Your task to perform on an android device: stop showing notifications on the lock screen Image 0: 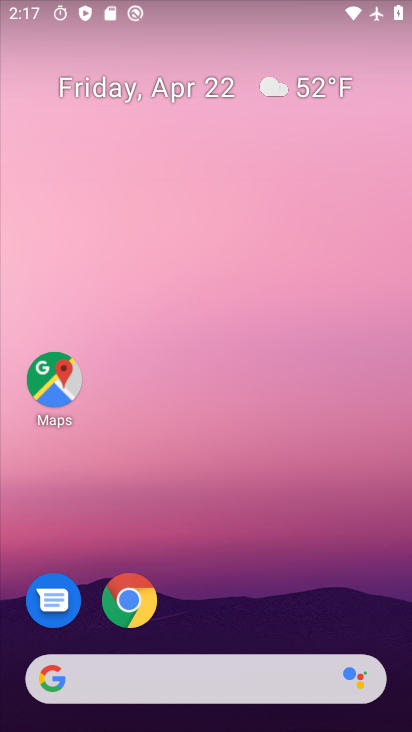
Step 0: drag from (210, 655) to (202, 254)
Your task to perform on an android device: stop showing notifications on the lock screen Image 1: 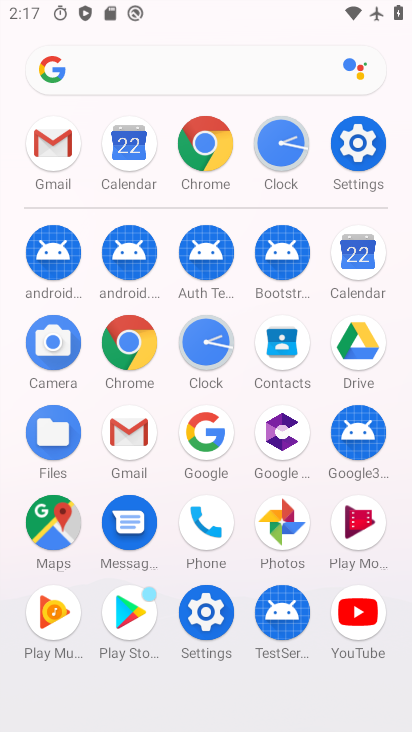
Step 1: click (355, 148)
Your task to perform on an android device: stop showing notifications on the lock screen Image 2: 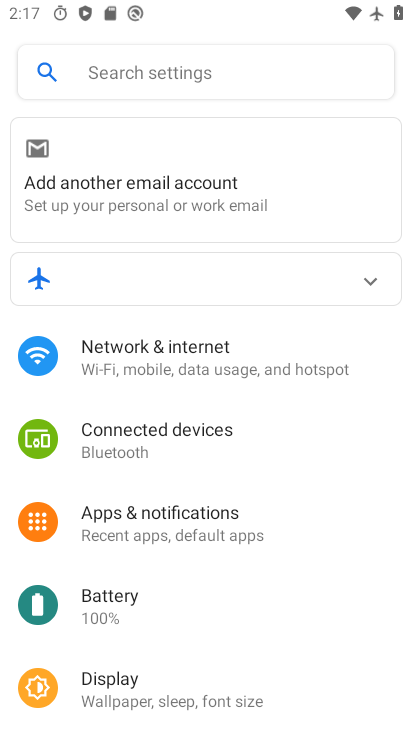
Step 2: click (170, 529)
Your task to perform on an android device: stop showing notifications on the lock screen Image 3: 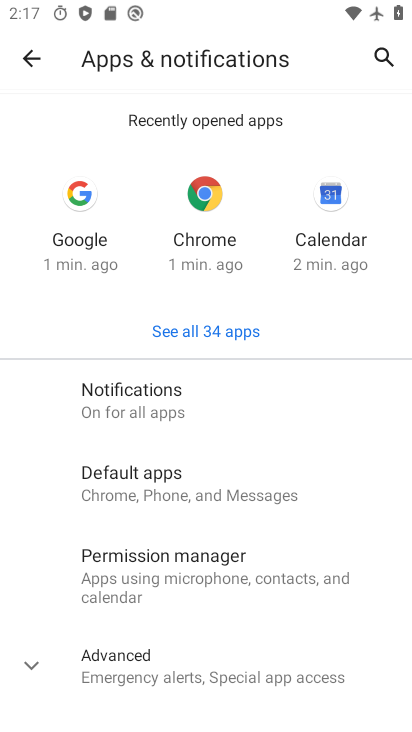
Step 3: click (130, 411)
Your task to perform on an android device: stop showing notifications on the lock screen Image 4: 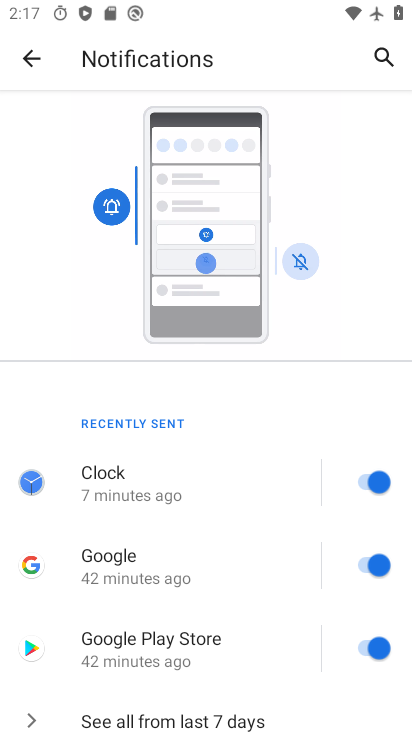
Step 4: drag from (194, 679) to (195, 320)
Your task to perform on an android device: stop showing notifications on the lock screen Image 5: 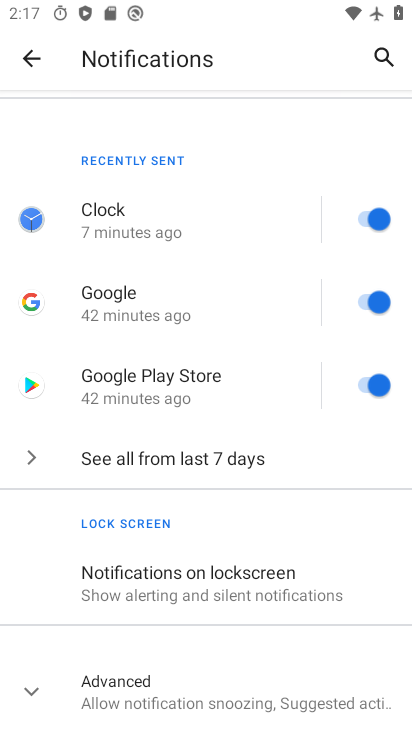
Step 5: click (168, 594)
Your task to perform on an android device: stop showing notifications on the lock screen Image 6: 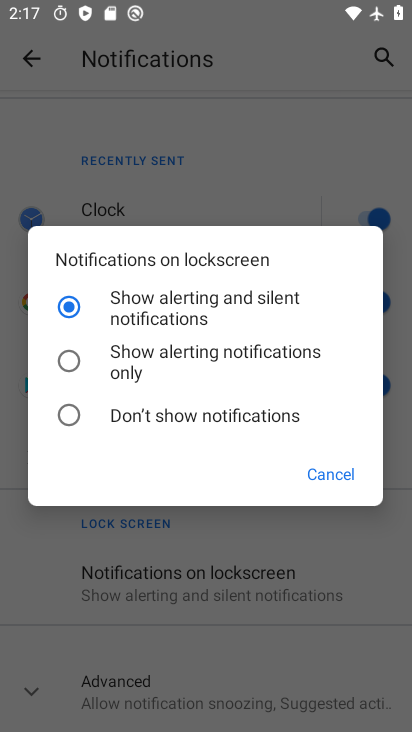
Step 6: click (68, 417)
Your task to perform on an android device: stop showing notifications on the lock screen Image 7: 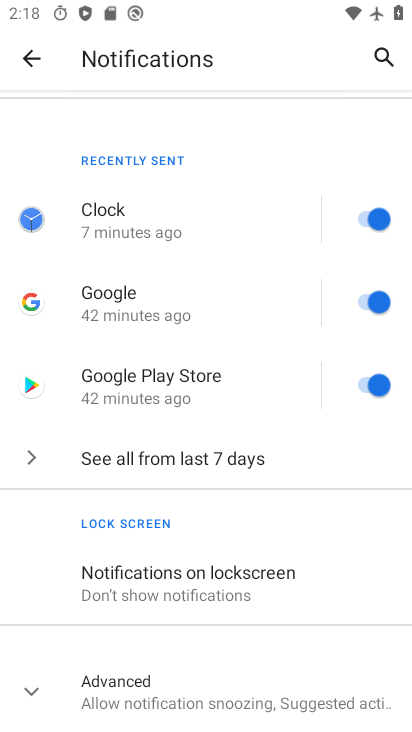
Step 7: task complete